Your task to perform on an android device: Go to display settings Image 0: 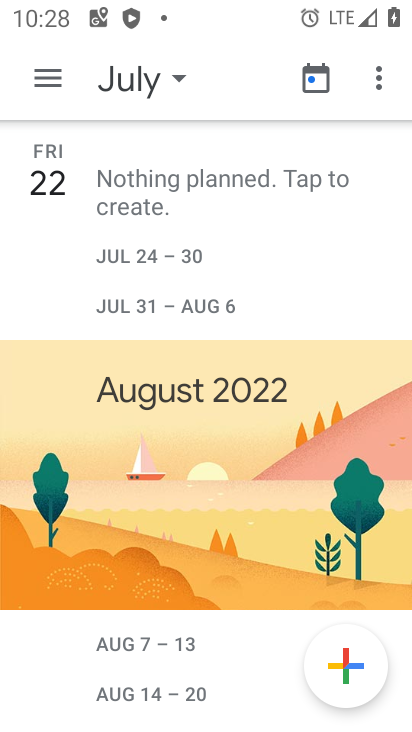
Step 0: press home button
Your task to perform on an android device: Go to display settings Image 1: 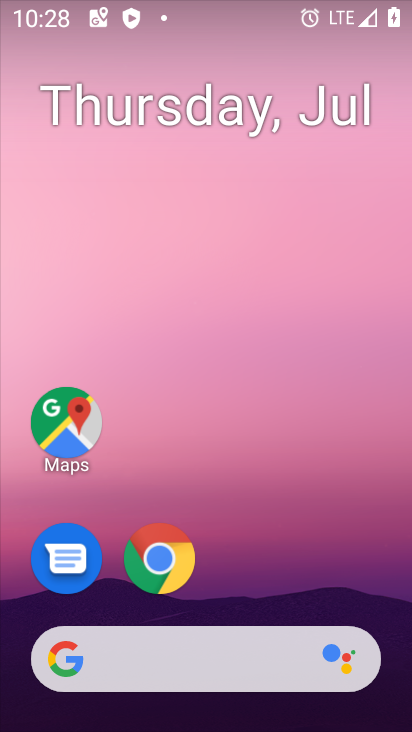
Step 1: drag from (358, 562) to (397, 116)
Your task to perform on an android device: Go to display settings Image 2: 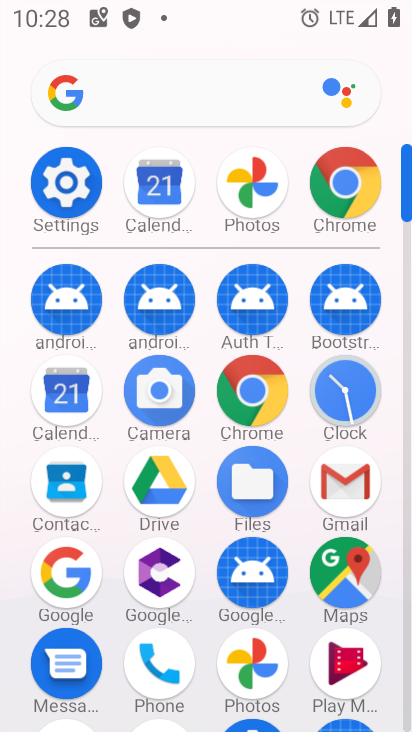
Step 2: click (74, 196)
Your task to perform on an android device: Go to display settings Image 3: 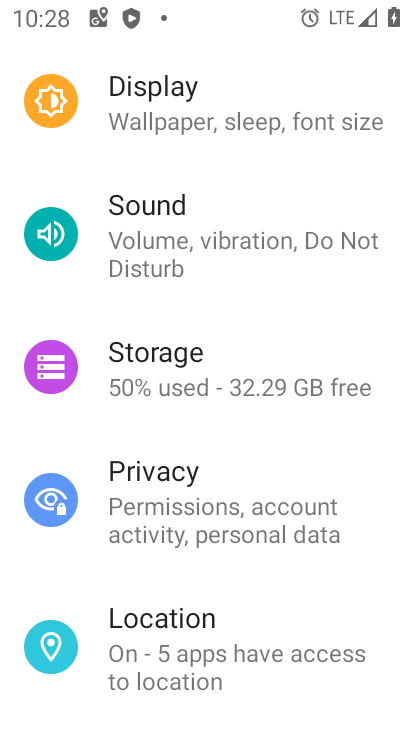
Step 3: drag from (344, 324) to (362, 395)
Your task to perform on an android device: Go to display settings Image 4: 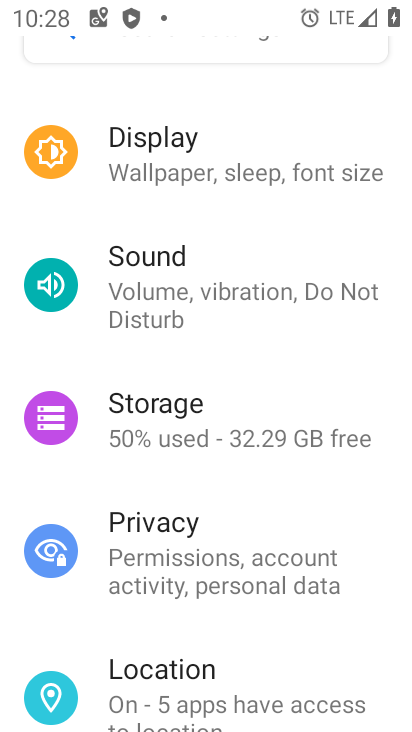
Step 4: drag from (379, 343) to (390, 430)
Your task to perform on an android device: Go to display settings Image 5: 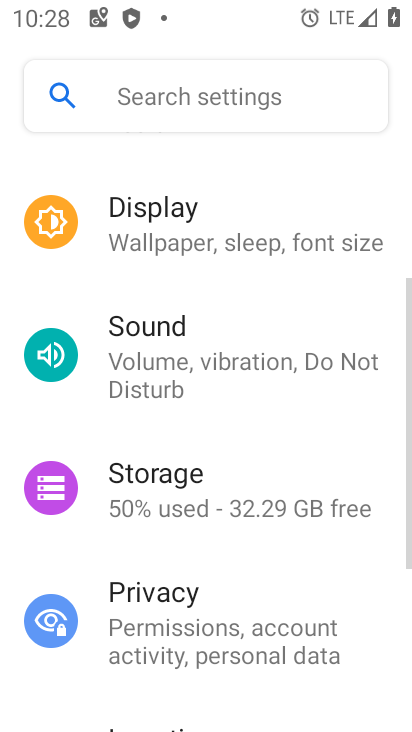
Step 5: drag from (376, 322) to (375, 434)
Your task to perform on an android device: Go to display settings Image 6: 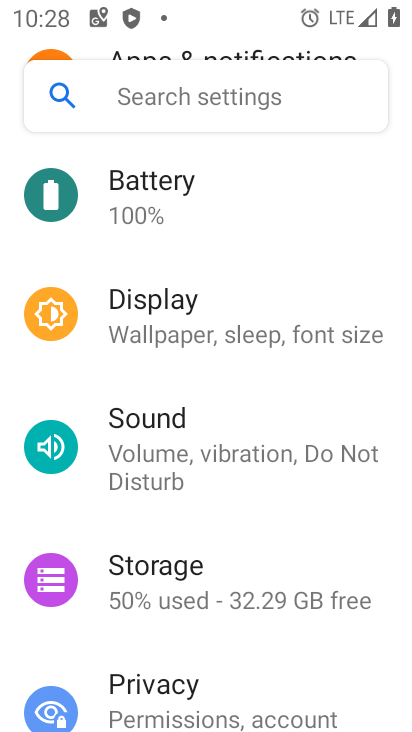
Step 6: drag from (370, 294) to (372, 462)
Your task to perform on an android device: Go to display settings Image 7: 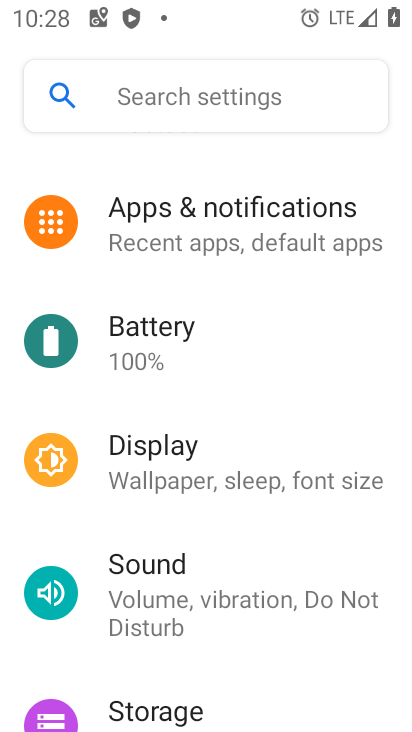
Step 7: drag from (337, 321) to (351, 478)
Your task to perform on an android device: Go to display settings Image 8: 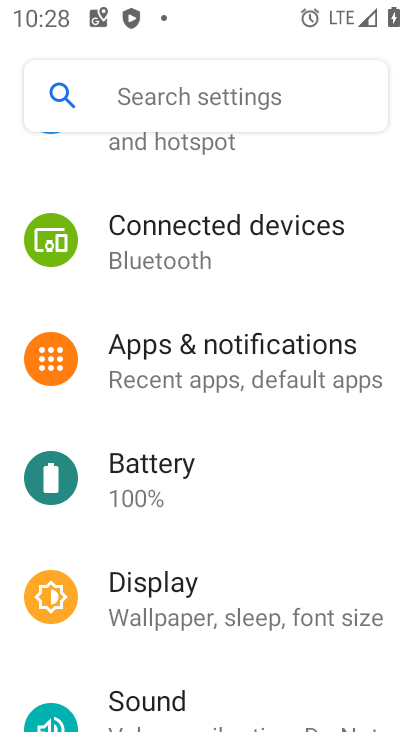
Step 8: click (316, 587)
Your task to perform on an android device: Go to display settings Image 9: 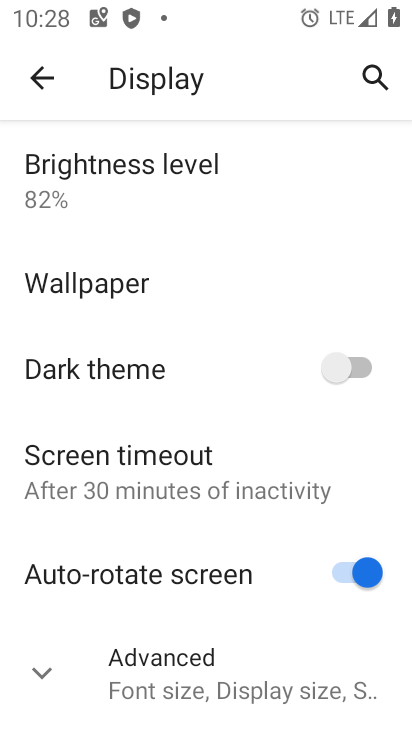
Step 9: click (261, 661)
Your task to perform on an android device: Go to display settings Image 10: 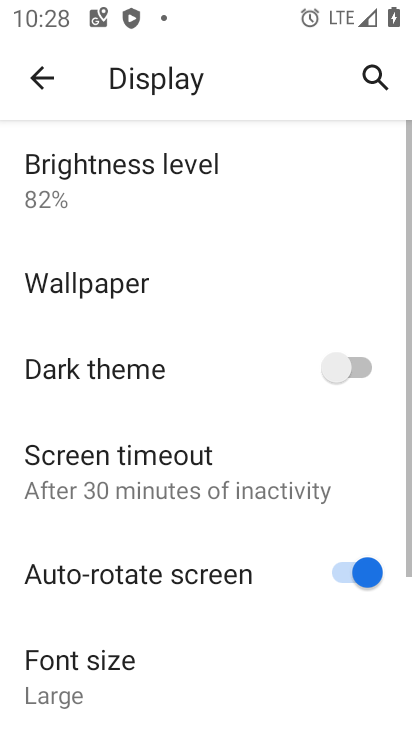
Step 10: task complete